Your task to perform on an android device: turn vacation reply on in the gmail app Image 0: 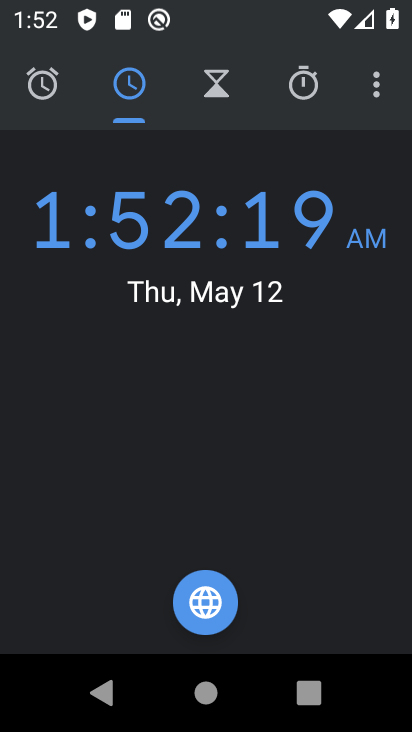
Step 0: press home button
Your task to perform on an android device: turn vacation reply on in the gmail app Image 1: 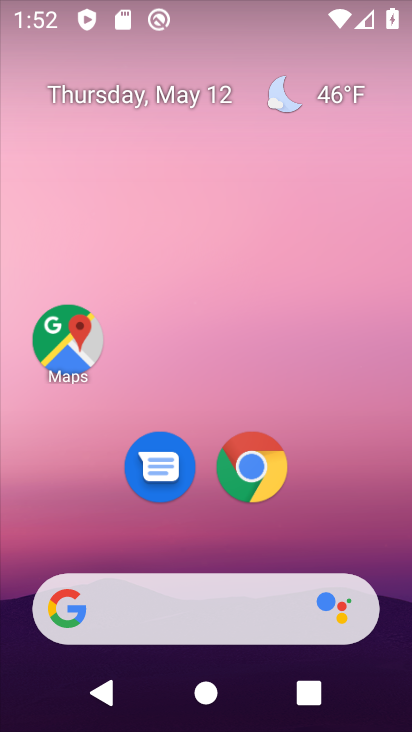
Step 1: drag from (344, 521) to (288, 300)
Your task to perform on an android device: turn vacation reply on in the gmail app Image 2: 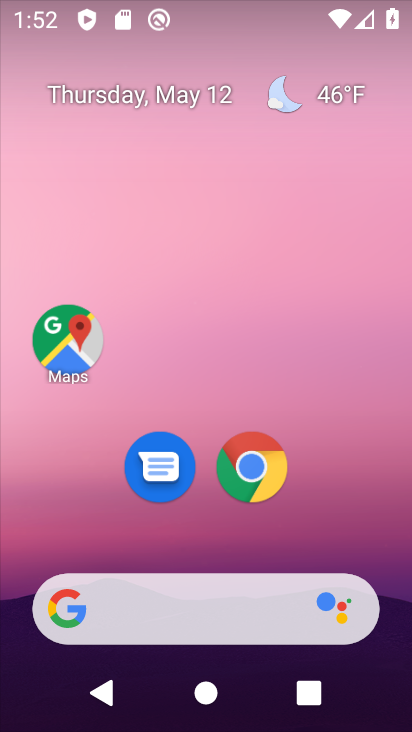
Step 2: drag from (371, 535) to (325, 268)
Your task to perform on an android device: turn vacation reply on in the gmail app Image 3: 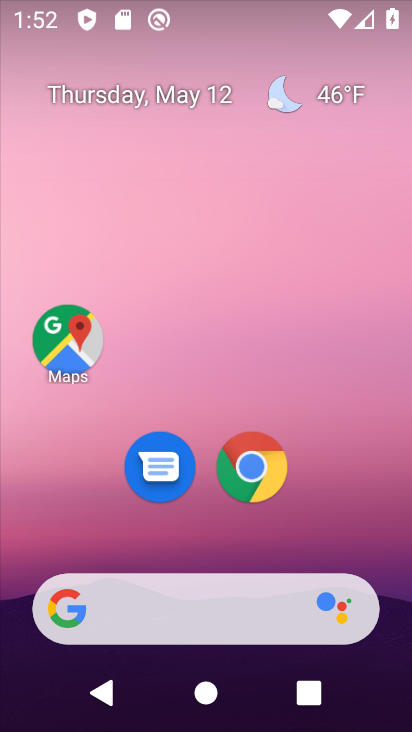
Step 3: drag from (366, 510) to (302, 204)
Your task to perform on an android device: turn vacation reply on in the gmail app Image 4: 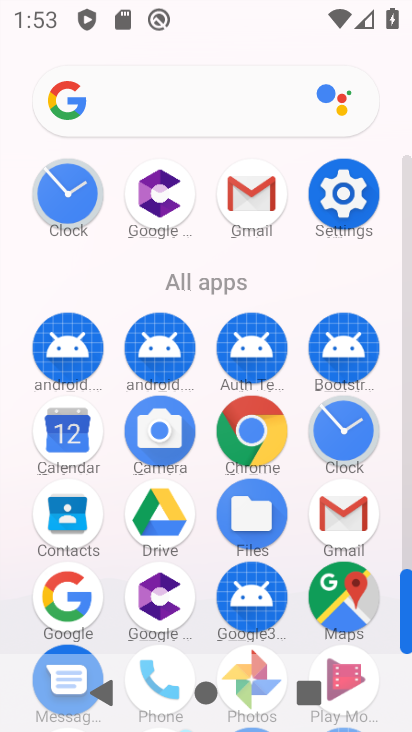
Step 4: click (343, 533)
Your task to perform on an android device: turn vacation reply on in the gmail app Image 5: 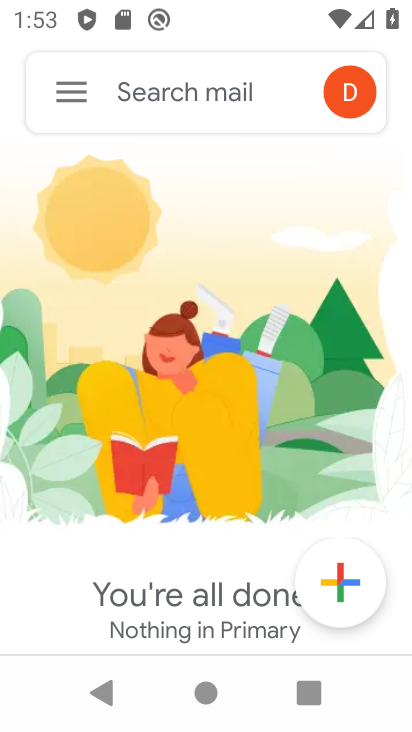
Step 5: click (343, 533)
Your task to perform on an android device: turn vacation reply on in the gmail app Image 6: 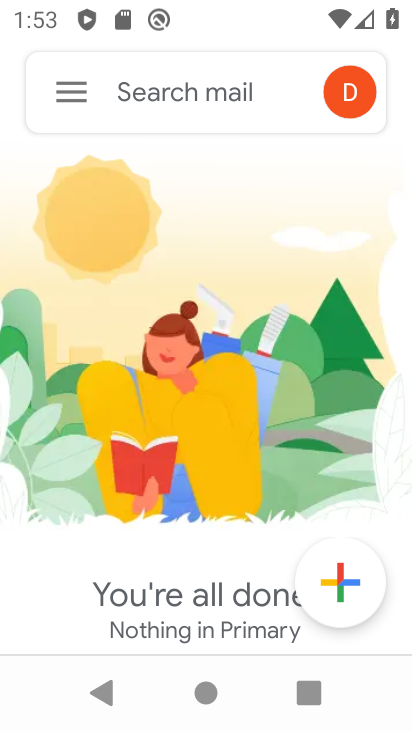
Step 6: click (63, 94)
Your task to perform on an android device: turn vacation reply on in the gmail app Image 7: 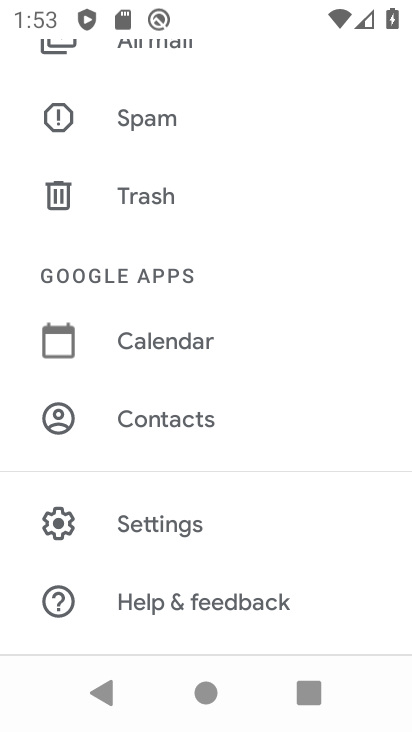
Step 7: click (193, 532)
Your task to perform on an android device: turn vacation reply on in the gmail app Image 8: 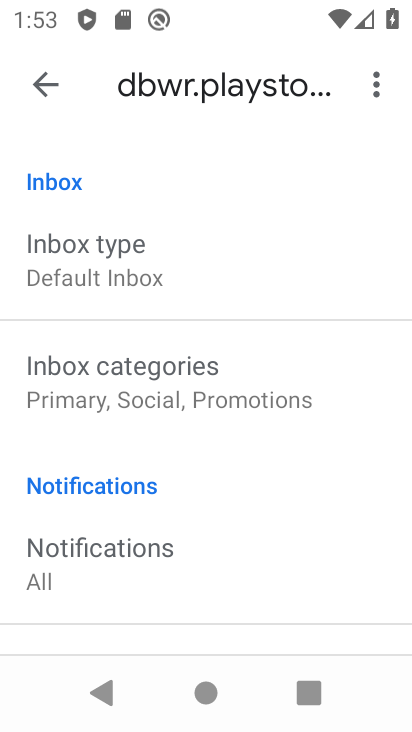
Step 8: task complete